Your task to perform on an android device: What's on my calendar tomorrow? Image 0: 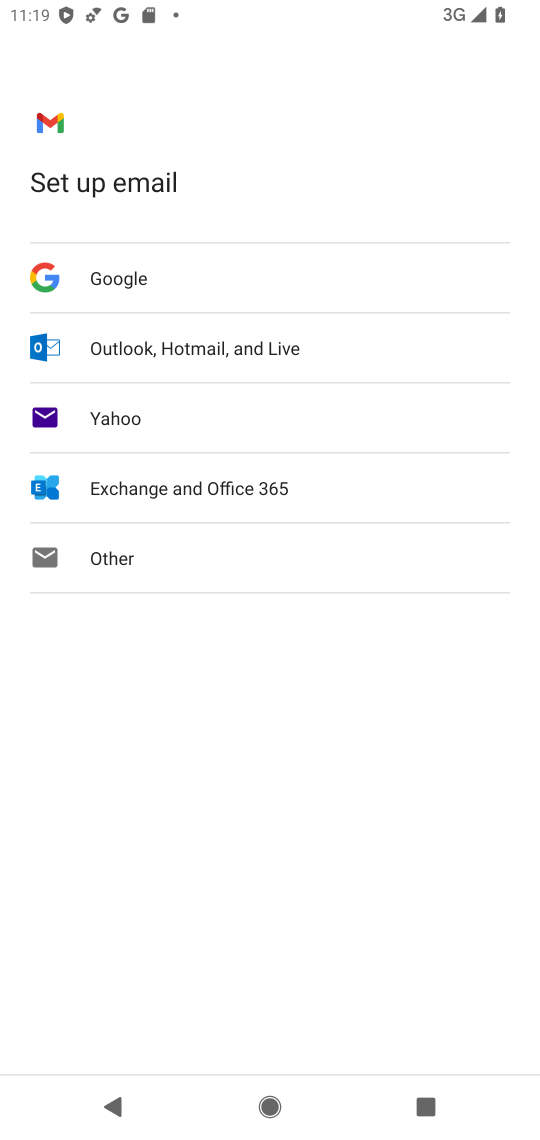
Step 0: press home button
Your task to perform on an android device: What's on my calendar tomorrow? Image 1: 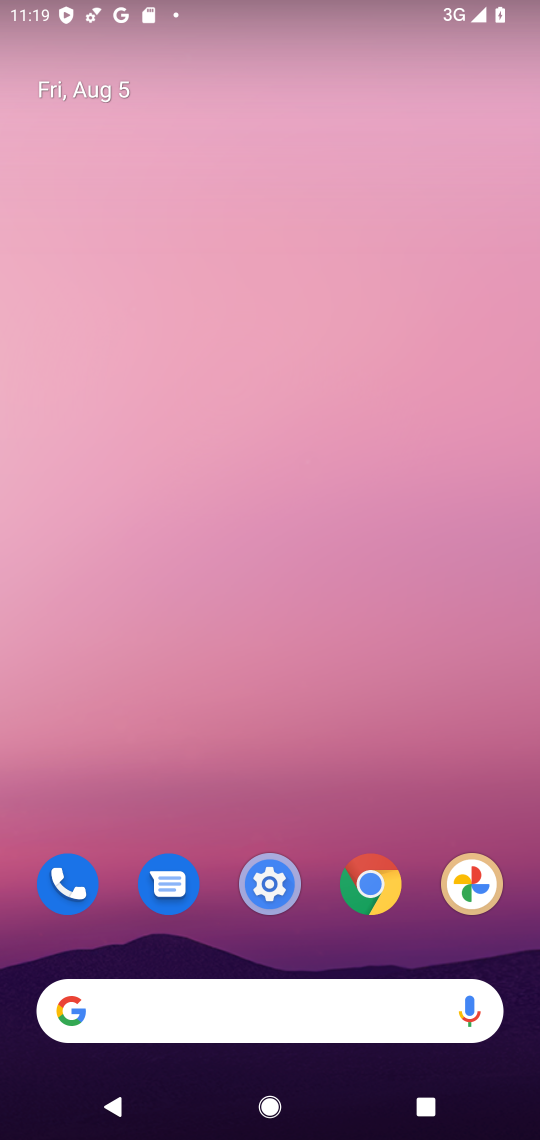
Step 1: press home button
Your task to perform on an android device: What's on my calendar tomorrow? Image 2: 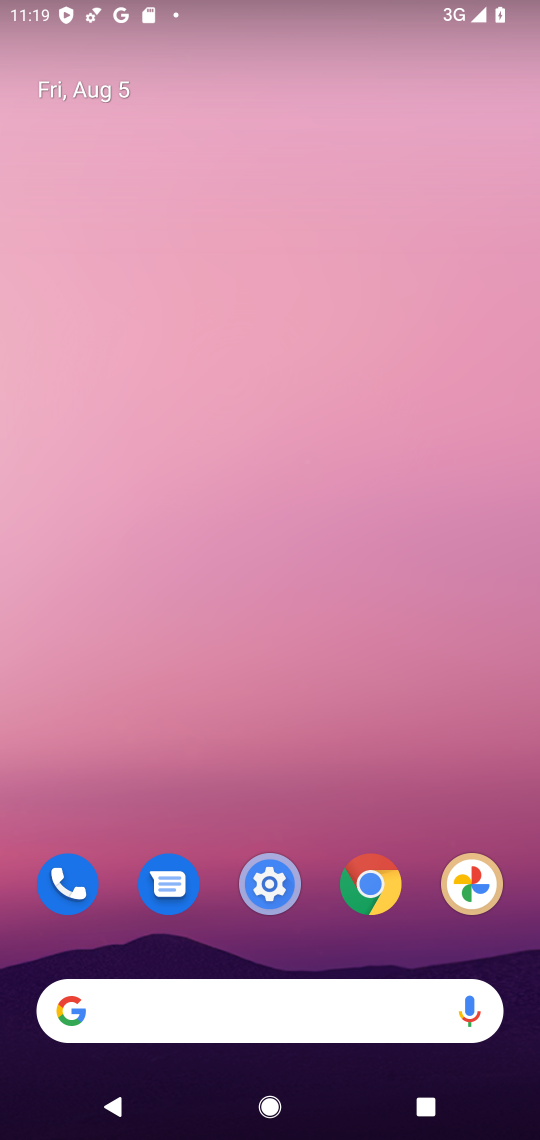
Step 2: press home button
Your task to perform on an android device: What's on my calendar tomorrow? Image 3: 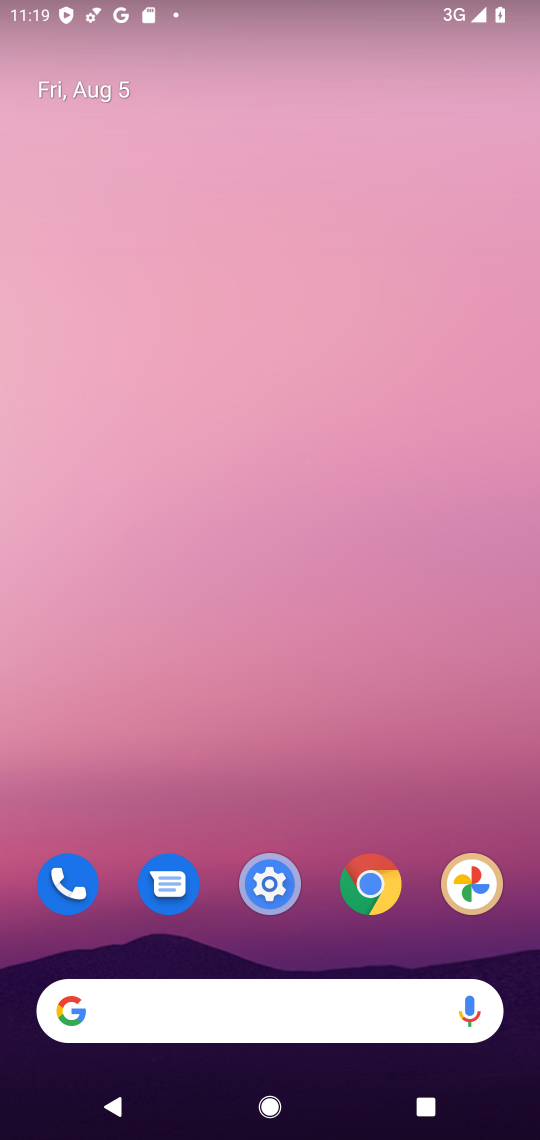
Step 3: press home button
Your task to perform on an android device: What's on my calendar tomorrow? Image 4: 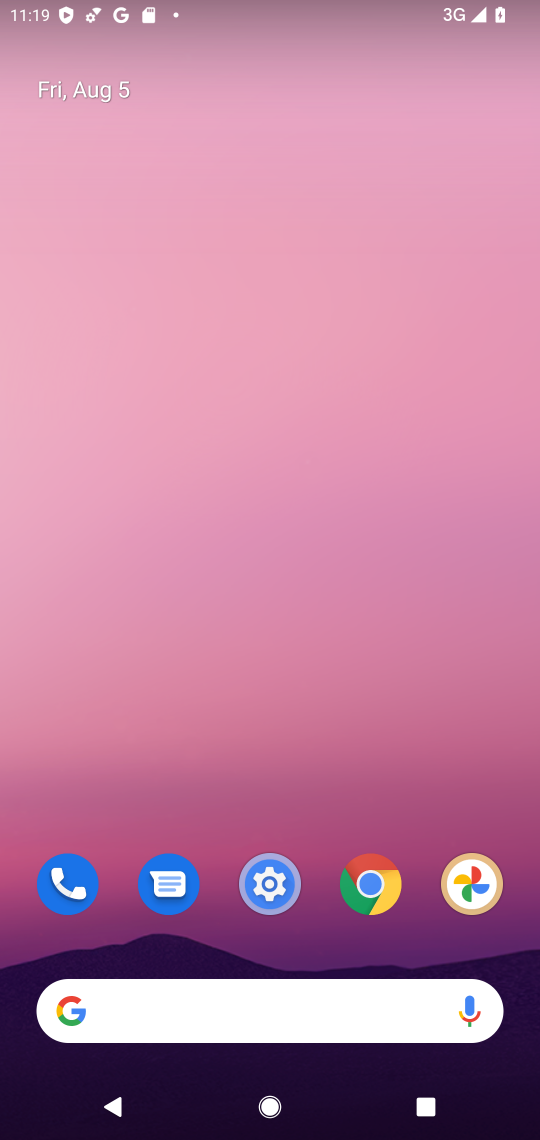
Step 4: drag from (202, 813) to (206, 200)
Your task to perform on an android device: What's on my calendar tomorrow? Image 5: 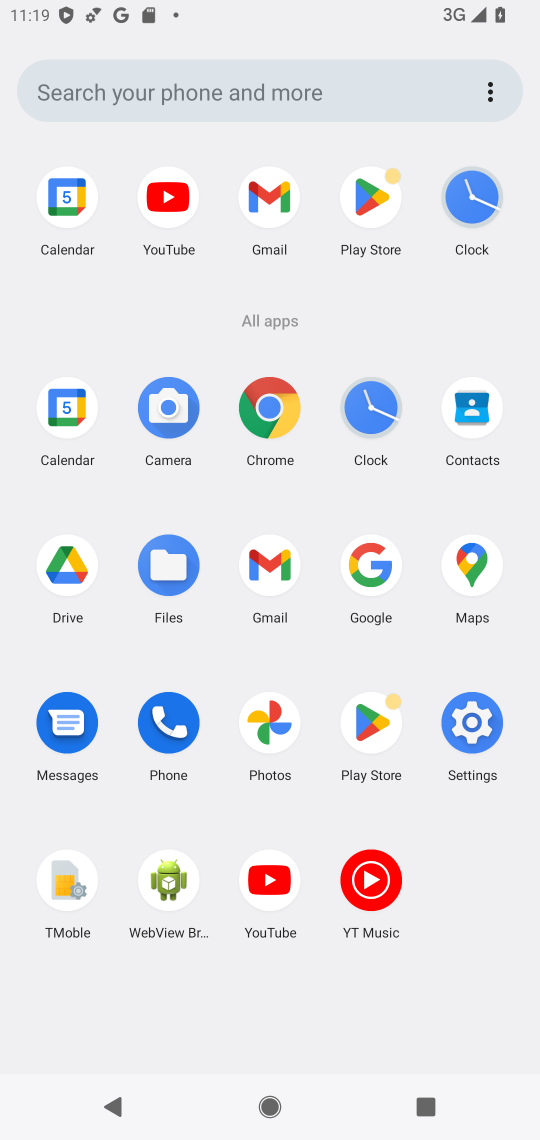
Step 5: click (49, 190)
Your task to perform on an android device: What's on my calendar tomorrow? Image 6: 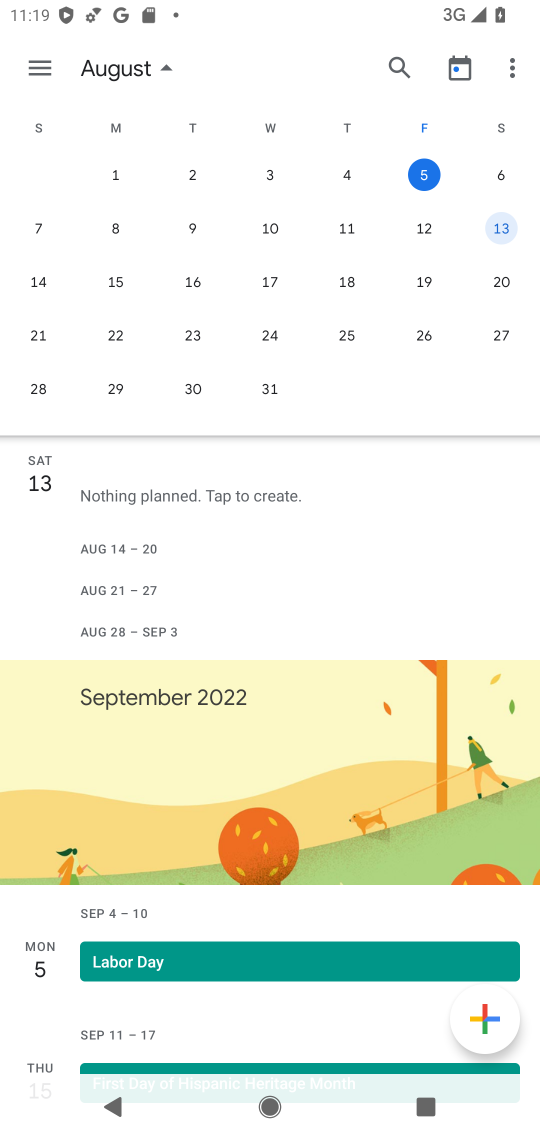
Step 6: click (493, 179)
Your task to perform on an android device: What's on my calendar tomorrow? Image 7: 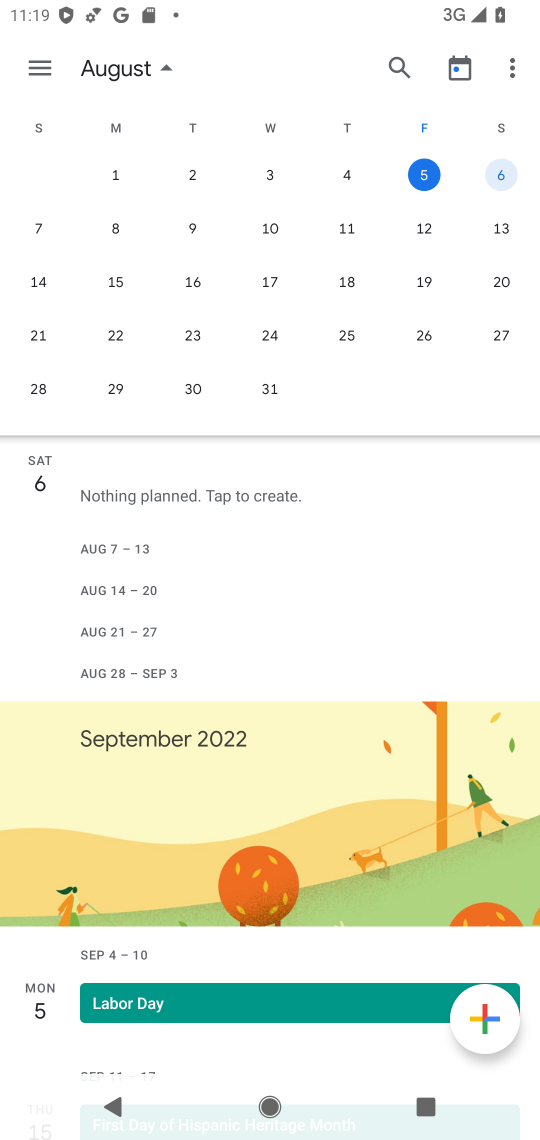
Step 7: task complete